Your task to perform on an android device: uninstall "Flipkart Online Shopping App" Image 0: 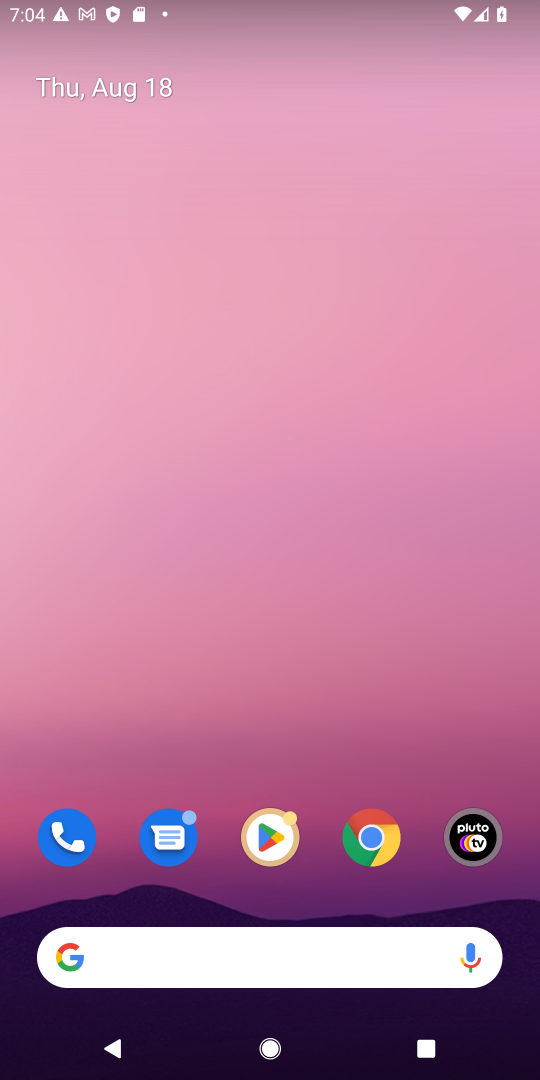
Step 0: drag from (237, 652) to (265, 304)
Your task to perform on an android device: uninstall "Flipkart Online Shopping App" Image 1: 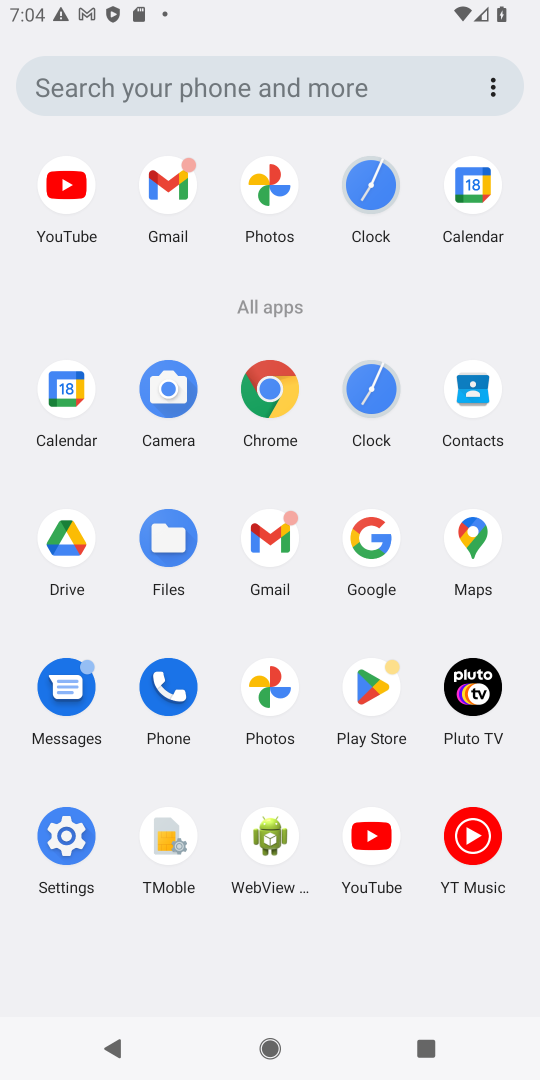
Step 1: click (366, 698)
Your task to perform on an android device: uninstall "Flipkart Online Shopping App" Image 2: 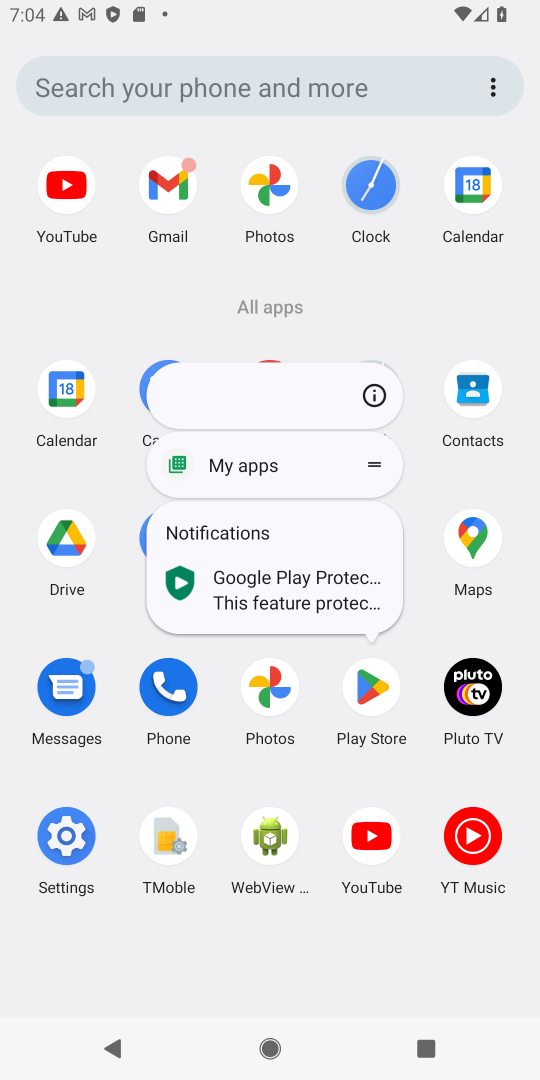
Step 2: click (366, 698)
Your task to perform on an android device: uninstall "Flipkart Online Shopping App" Image 3: 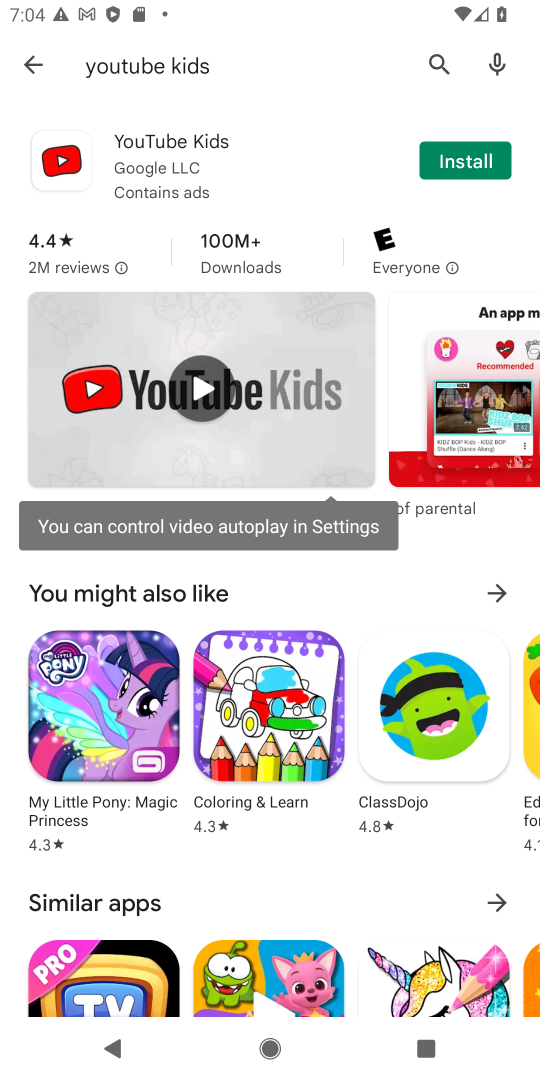
Step 3: click (198, 59)
Your task to perform on an android device: uninstall "Flipkart Online Shopping App" Image 4: 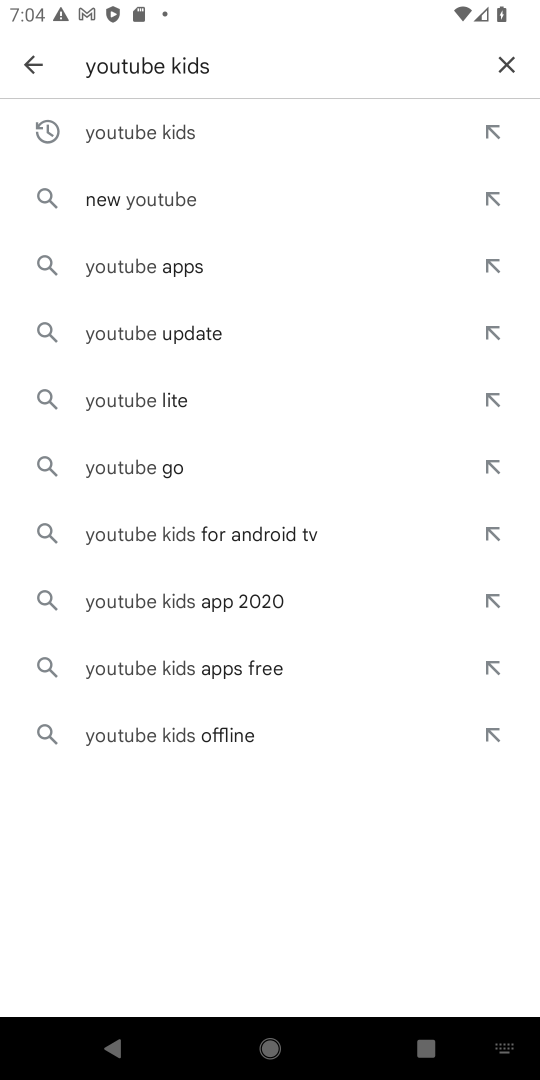
Step 4: click (496, 70)
Your task to perform on an android device: uninstall "Flipkart Online Shopping App" Image 5: 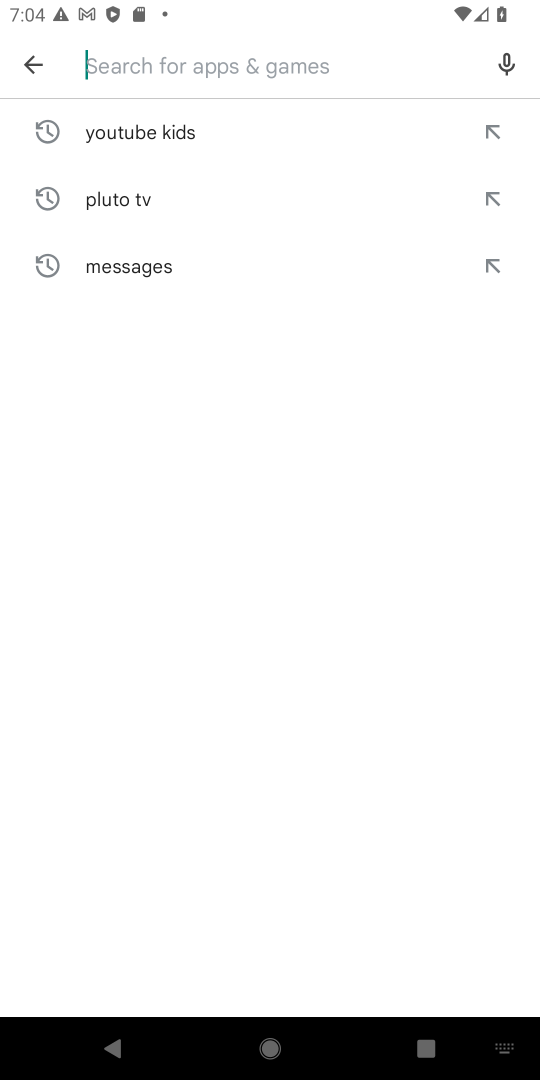
Step 5: type "Flipkart "
Your task to perform on an android device: uninstall "Flipkart Online Shopping App" Image 6: 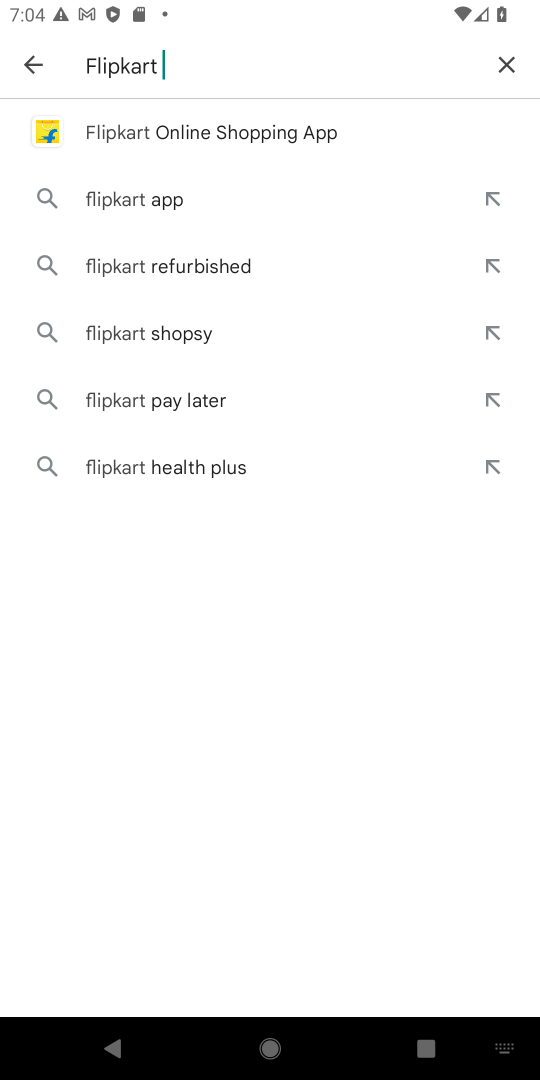
Step 6: click (264, 145)
Your task to perform on an android device: uninstall "Flipkart Online Shopping App" Image 7: 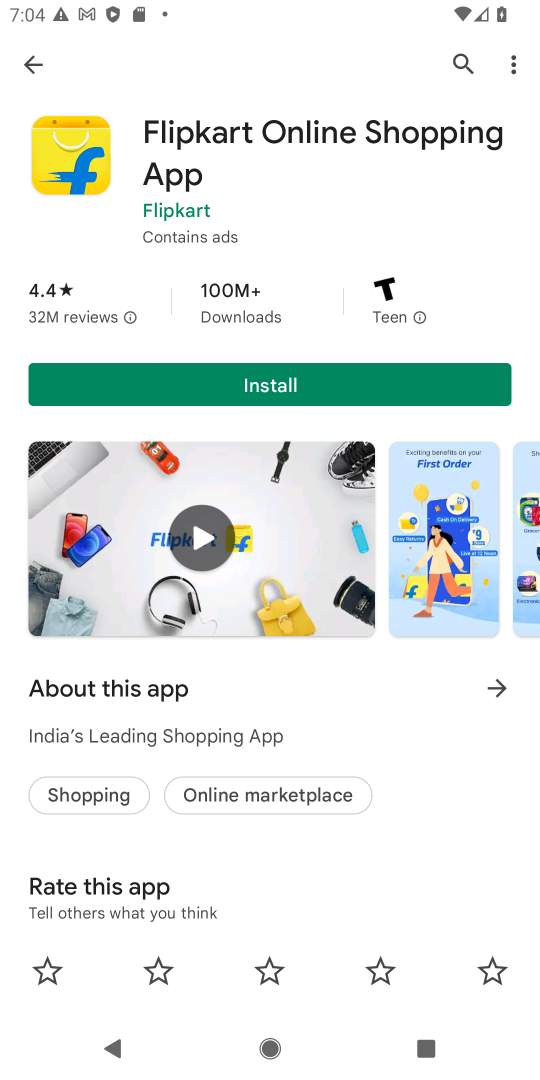
Step 7: task complete